Your task to perform on an android device: What is the recent news? Image 0: 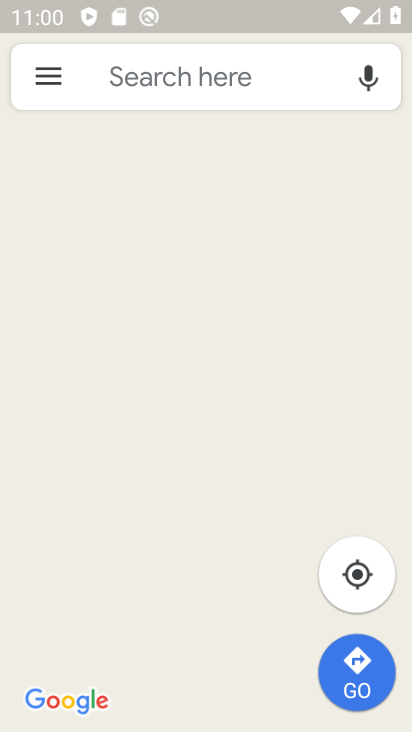
Step 0: click (64, 433)
Your task to perform on an android device: What is the recent news? Image 1: 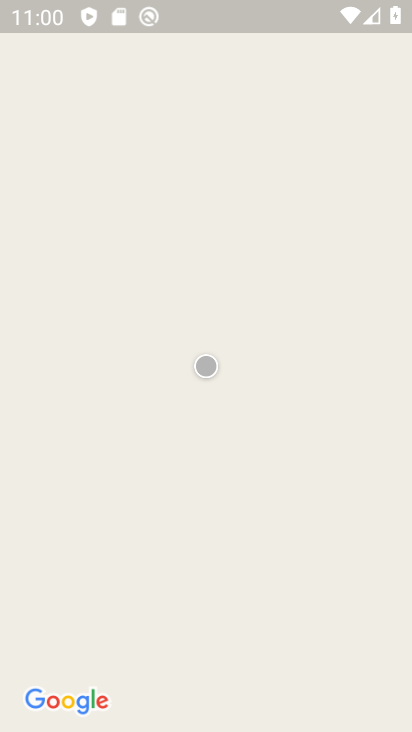
Step 1: press home button
Your task to perform on an android device: What is the recent news? Image 2: 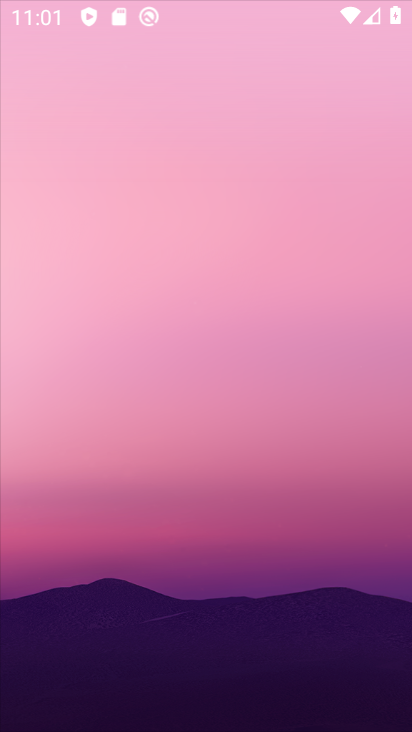
Step 2: press home button
Your task to perform on an android device: What is the recent news? Image 3: 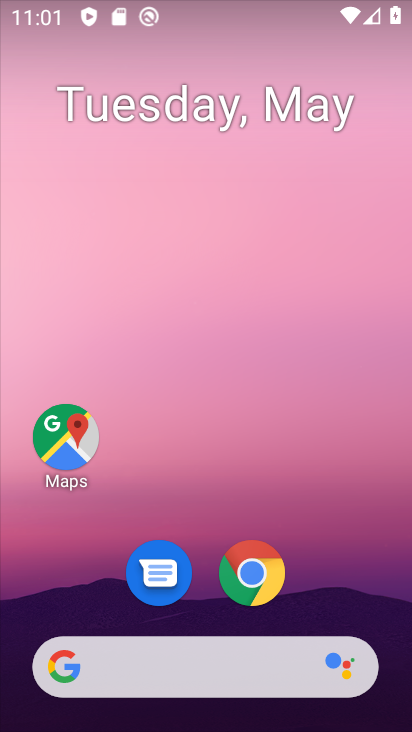
Step 3: drag from (212, 627) to (171, 234)
Your task to perform on an android device: What is the recent news? Image 4: 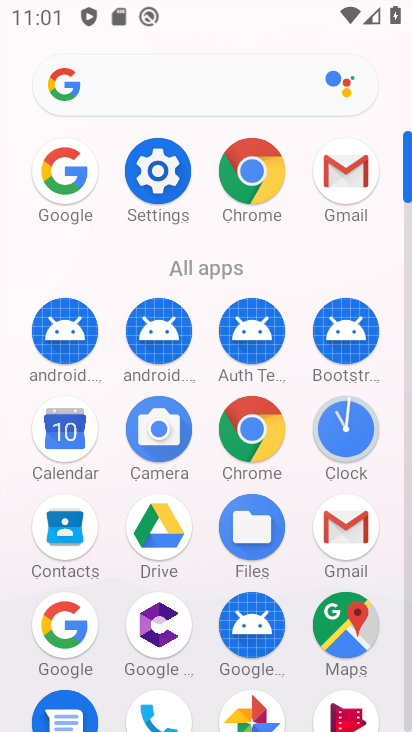
Step 4: click (59, 615)
Your task to perform on an android device: What is the recent news? Image 5: 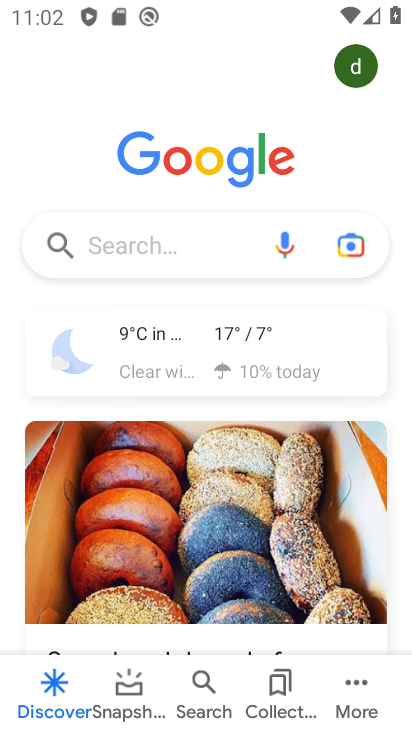
Step 5: click (130, 248)
Your task to perform on an android device: What is the recent news? Image 6: 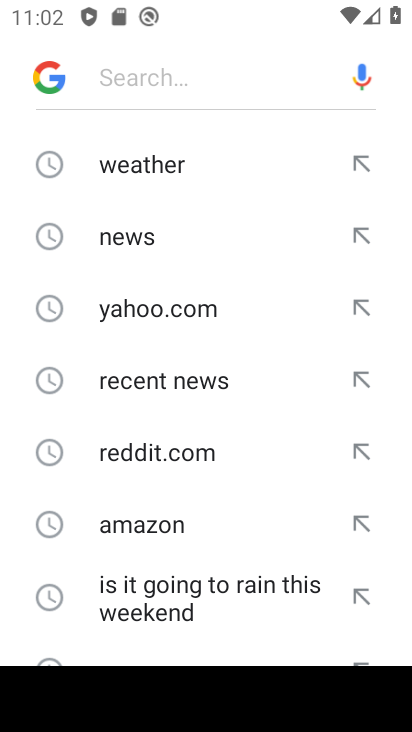
Step 6: click (119, 380)
Your task to perform on an android device: What is the recent news? Image 7: 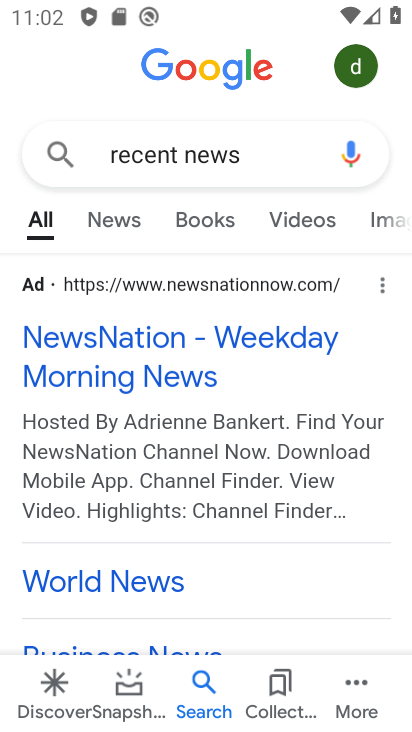
Step 7: task complete